Your task to perform on an android device: star an email in the gmail app Image 0: 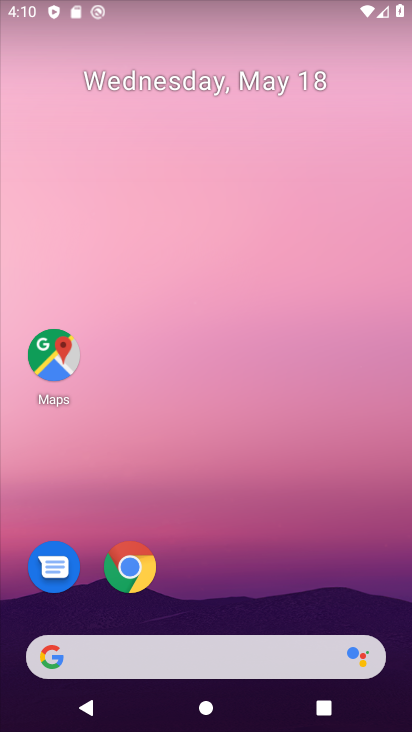
Step 0: drag from (209, 613) to (217, 179)
Your task to perform on an android device: star an email in the gmail app Image 1: 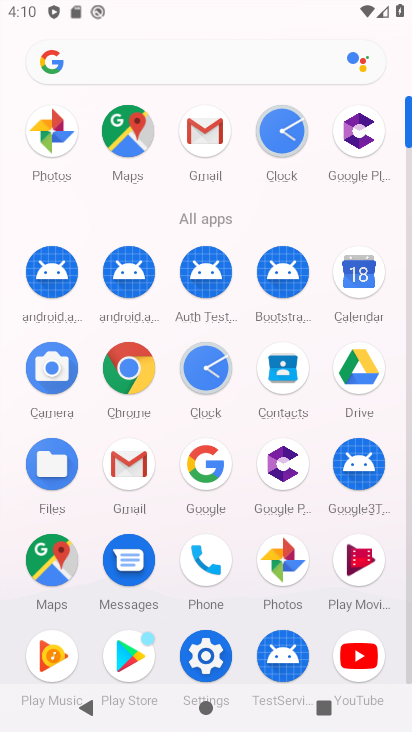
Step 1: click (129, 474)
Your task to perform on an android device: star an email in the gmail app Image 2: 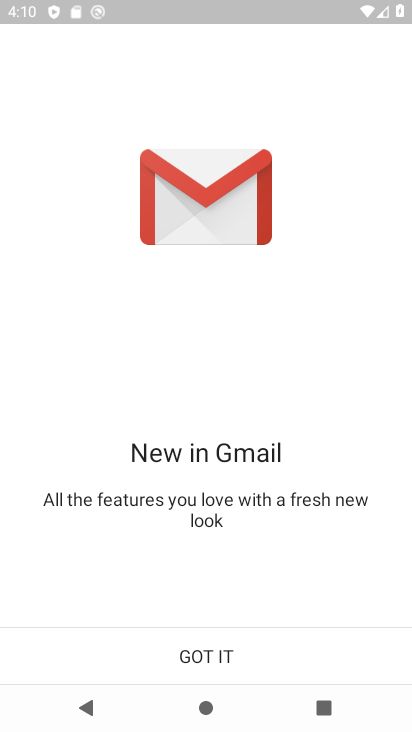
Step 2: click (201, 644)
Your task to perform on an android device: star an email in the gmail app Image 3: 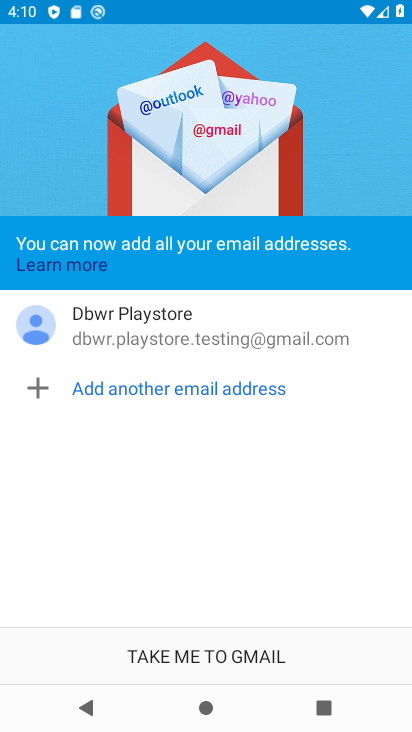
Step 3: click (168, 666)
Your task to perform on an android device: star an email in the gmail app Image 4: 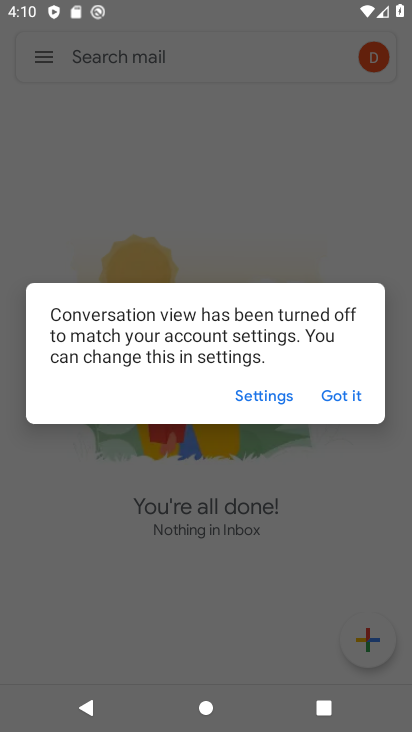
Step 4: click (351, 394)
Your task to perform on an android device: star an email in the gmail app Image 5: 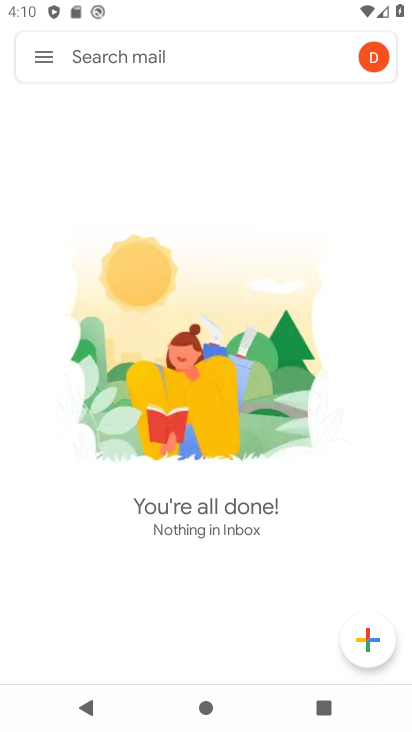
Step 5: click (37, 59)
Your task to perform on an android device: star an email in the gmail app Image 6: 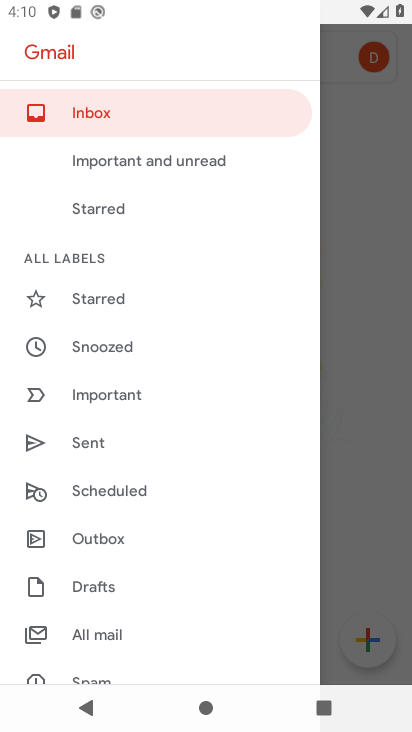
Step 6: click (105, 294)
Your task to perform on an android device: star an email in the gmail app Image 7: 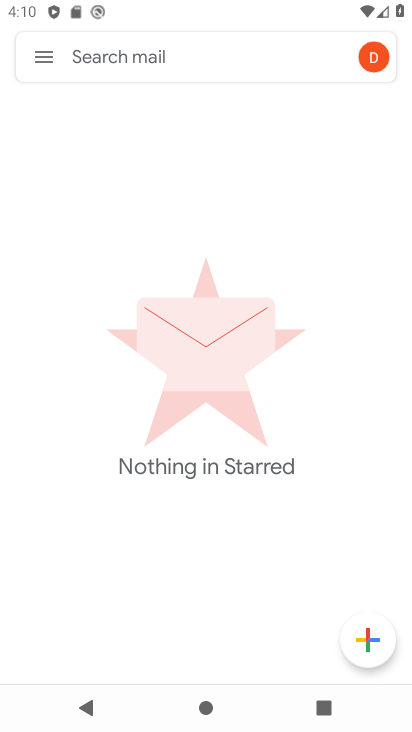
Step 7: task complete